Your task to perform on an android device: Go to network settings Image 0: 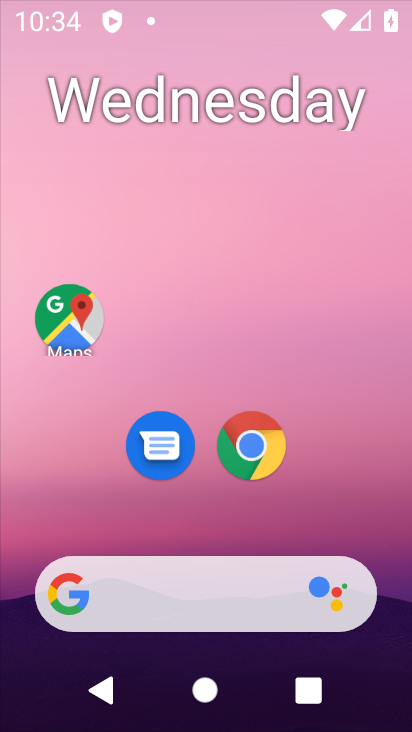
Step 0: drag from (356, 507) to (357, 102)
Your task to perform on an android device: Go to network settings Image 1: 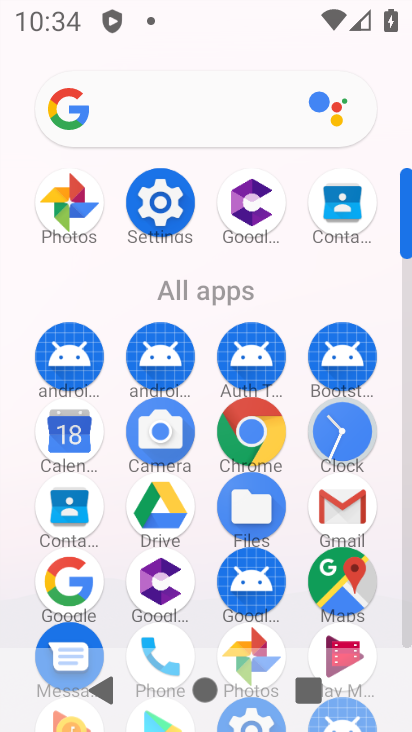
Step 1: click (155, 225)
Your task to perform on an android device: Go to network settings Image 2: 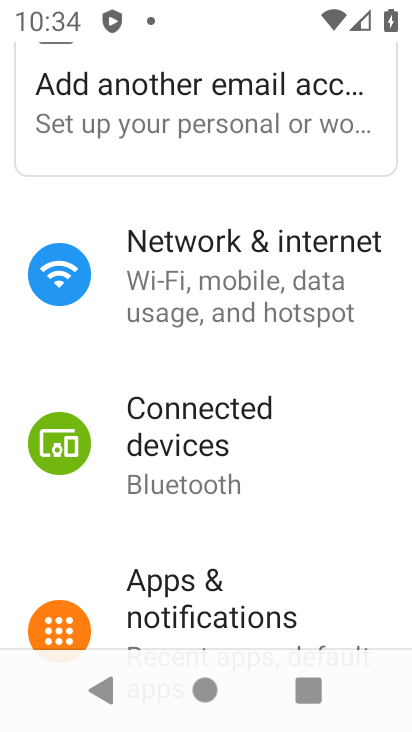
Step 2: click (253, 268)
Your task to perform on an android device: Go to network settings Image 3: 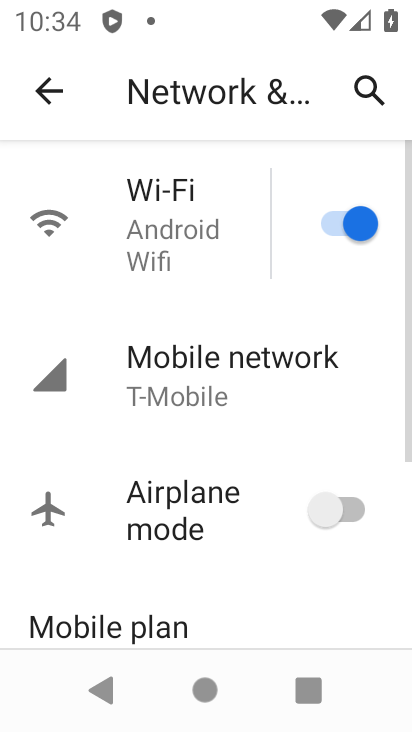
Step 3: task complete